Your task to perform on an android device: Open internet settings Image 0: 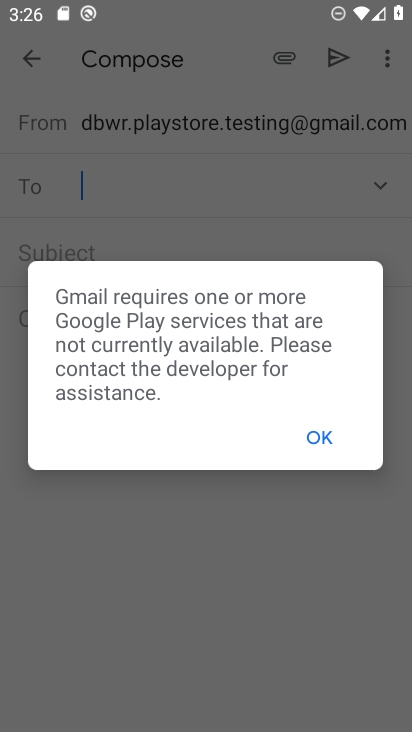
Step 0: press home button
Your task to perform on an android device: Open internet settings Image 1: 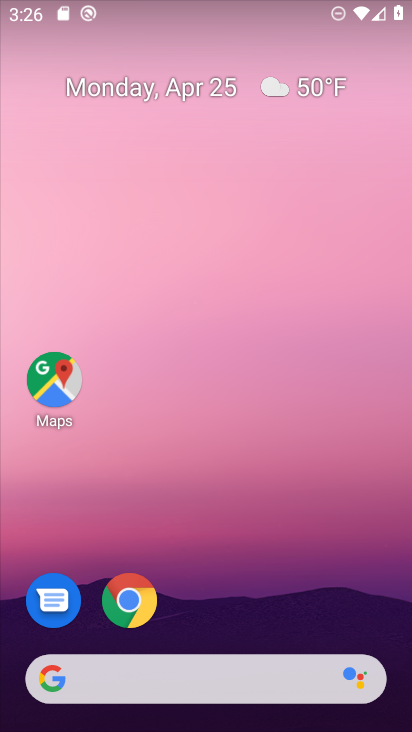
Step 1: drag from (204, 636) to (210, 3)
Your task to perform on an android device: Open internet settings Image 2: 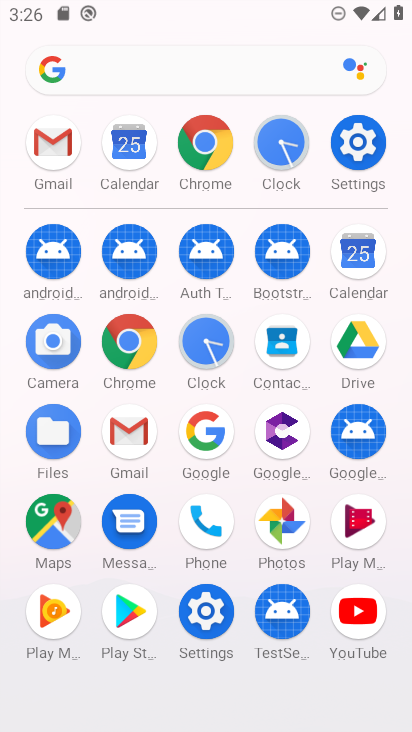
Step 2: click (354, 164)
Your task to perform on an android device: Open internet settings Image 3: 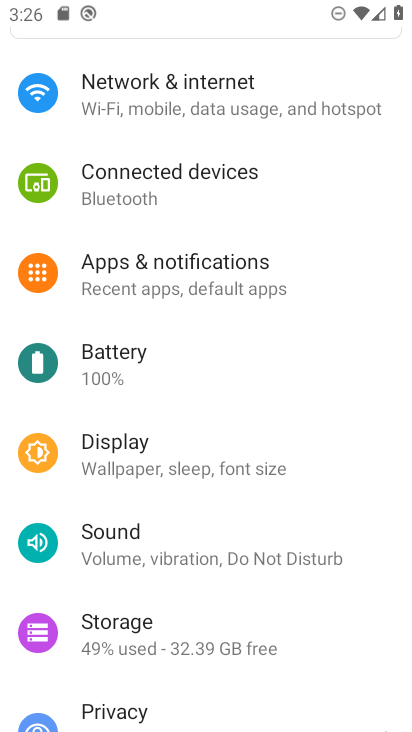
Step 3: drag from (228, 181) to (184, 573)
Your task to perform on an android device: Open internet settings Image 4: 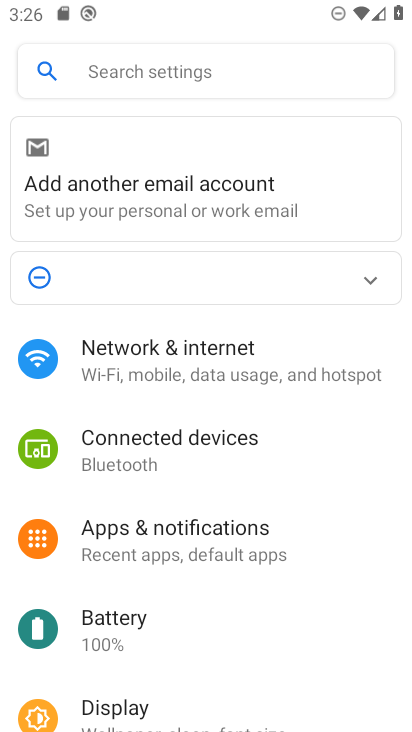
Step 4: click (136, 352)
Your task to perform on an android device: Open internet settings Image 5: 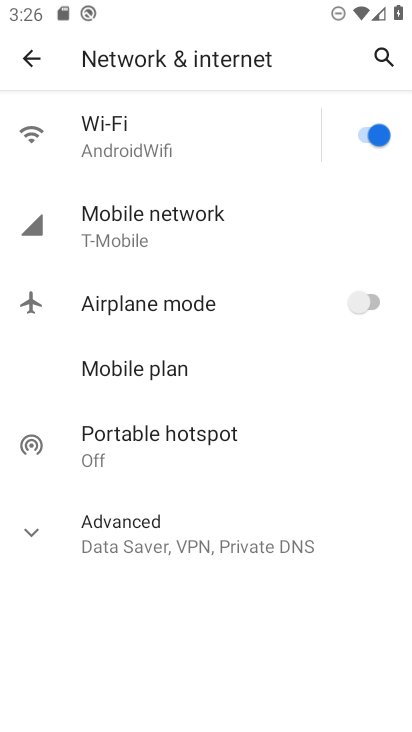
Step 5: click (131, 561)
Your task to perform on an android device: Open internet settings Image 6: 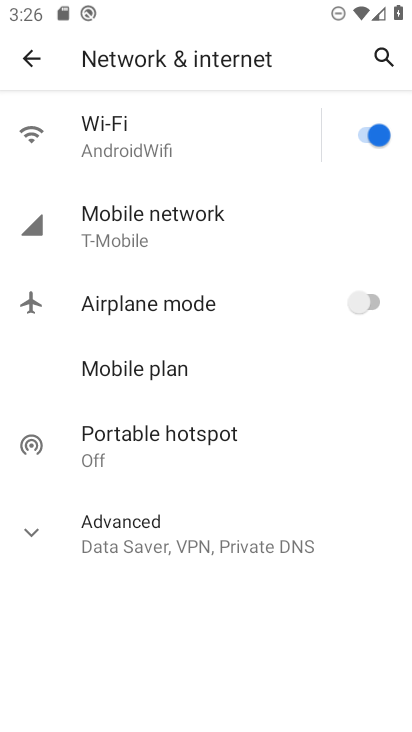
Step 6: click (142, 542)
Your task to perform on an android device: Open internet settings Image 7: 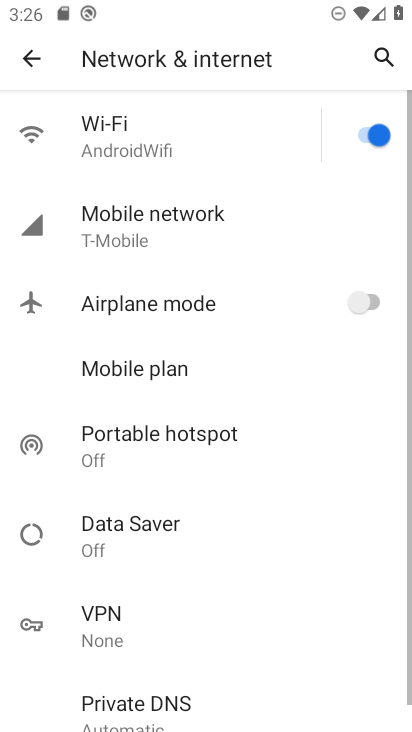
Step 7: task complete